Your task to perform on an android device: Go to location settings Image 0: 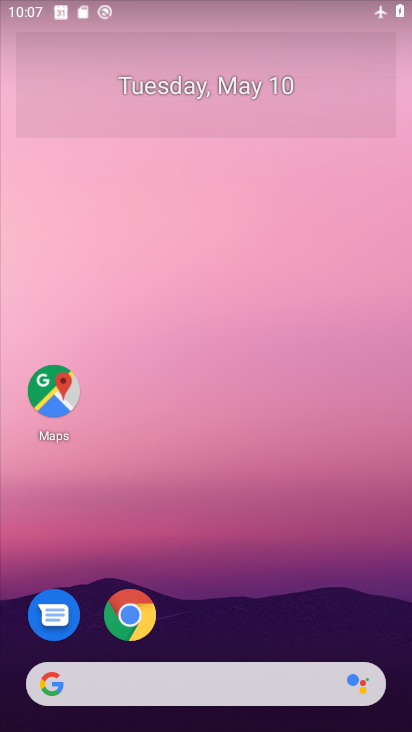
Step 0: drag from (213, 513) to (227, 98)
Your task to perform on an android device: Go to location settings Image 1: 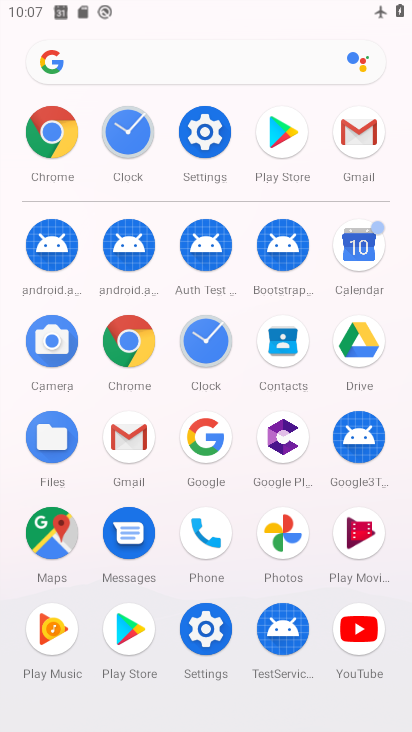
Step 1: click (196, 132)
Your task to perform on an android device: Go to location settings Image 2: 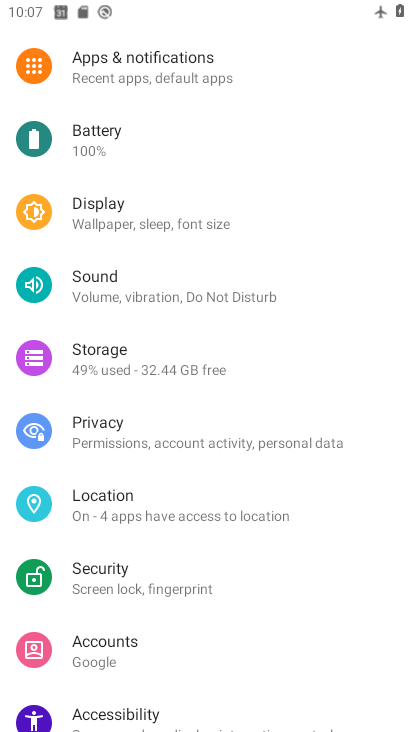
Step 2: drag from (126, 534) to (218, 215)
Your task to perform on an android device: Go to location settings Image 3: 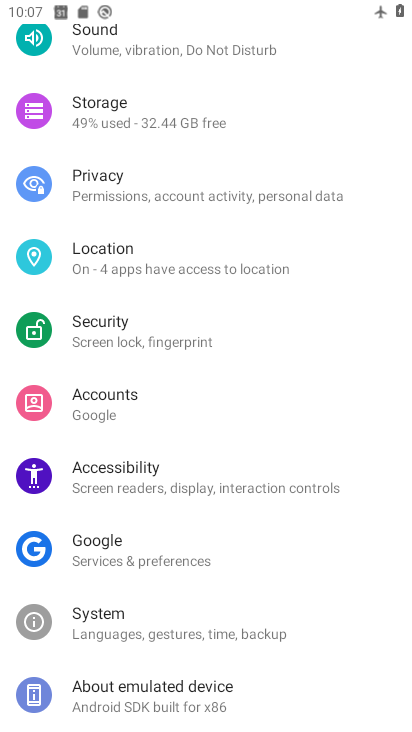
Step 3: click (134, 248)
Your task to perform on an android device: Go to location settings Image 4: 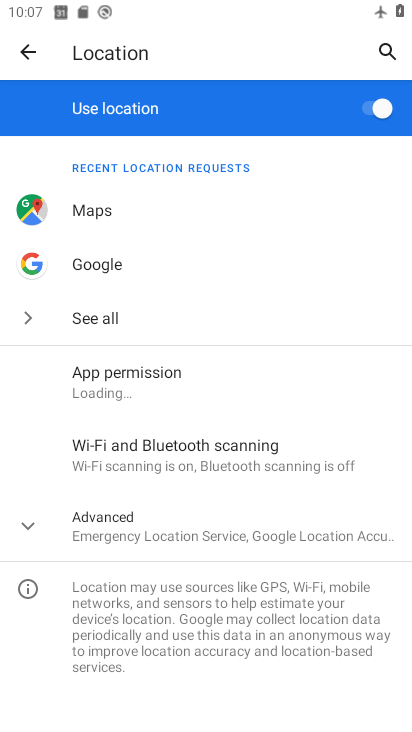
Step 4: task complete